Your task to perform on an android device: Is it going to rain tomorrow? Image 0: 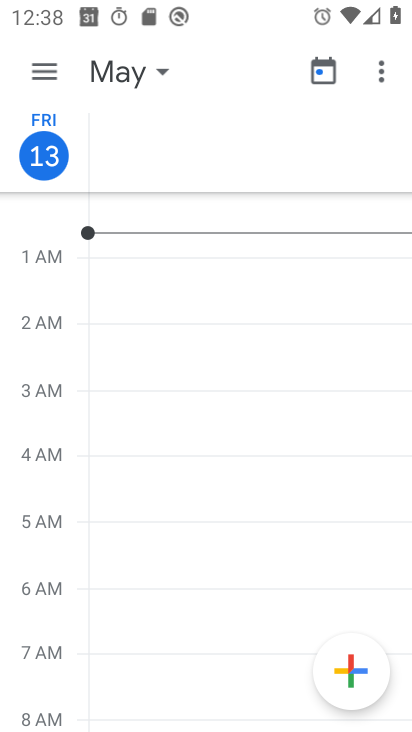
Step 0: press home button
Your task to perform on an android device: Is it going to rain tomorrow? Image 1: 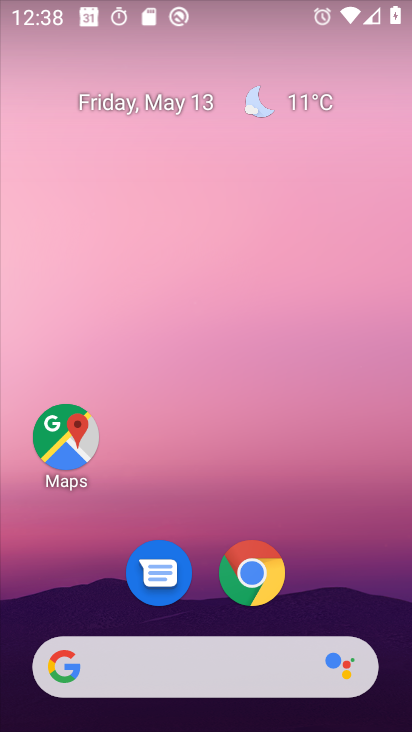
Step 1: click (295, 105)
Your task to perform on an android device: Is it going to rain tomorrow? Image 2: 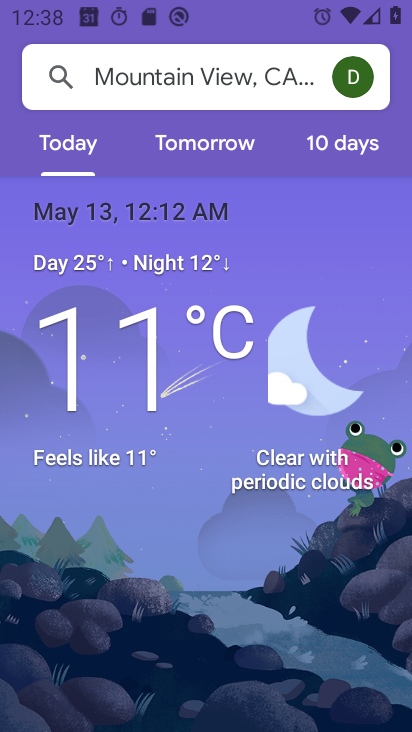
Step 2: click (176, 138)
Your task to perform on an android device: Is it going to rain tomorrow? Image 3: 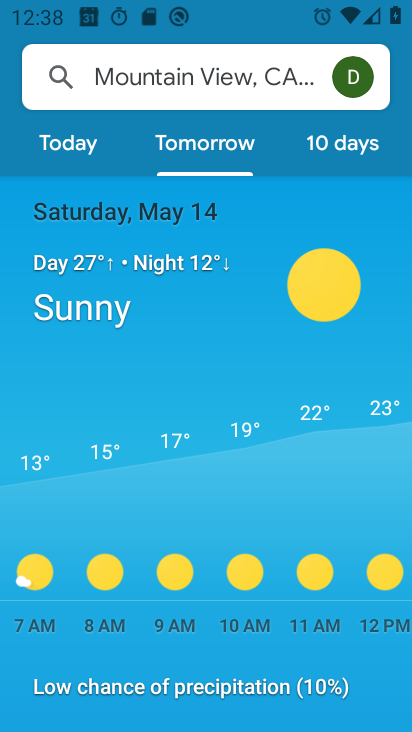
Step 3: task complete